Your task to perform on an android device: turn on translation in the chrome app Image 0: 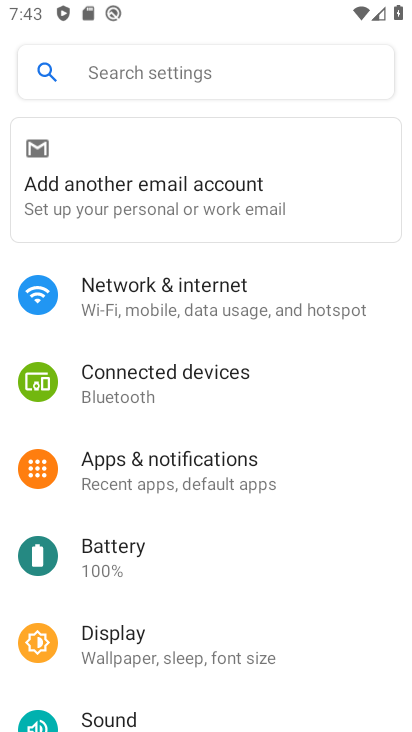
Step 0: press home button
Your task to perform on an android device: turn on translation in the chrome app Image 1: 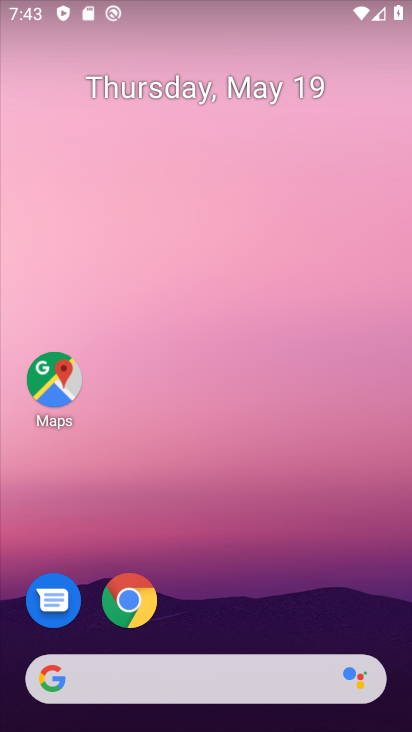
Step 1: click (145, 606)
Your task to perform on an android device: turn on translation in the chrome app Image 2: 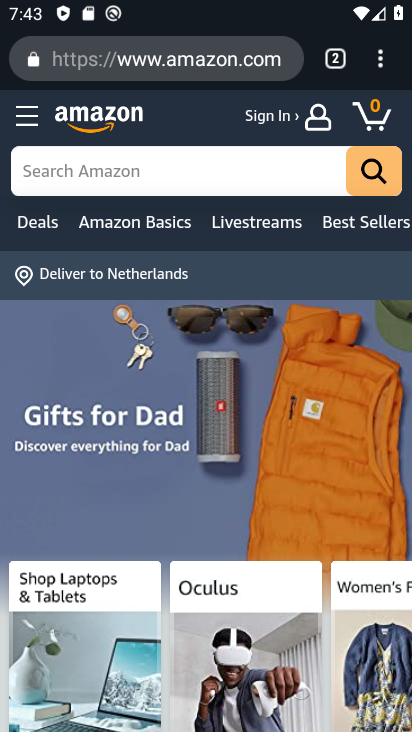
Step 2: click (386, 62)
Your task to perform on an android device: turn on translation in the chrome app Image 3: 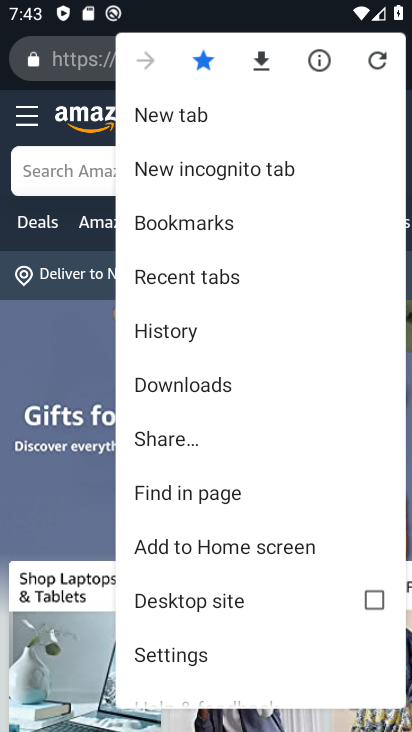
Step 3: click (196, 656)
Your task to perform on an android device: turn on translation in the chrome app Image 4: 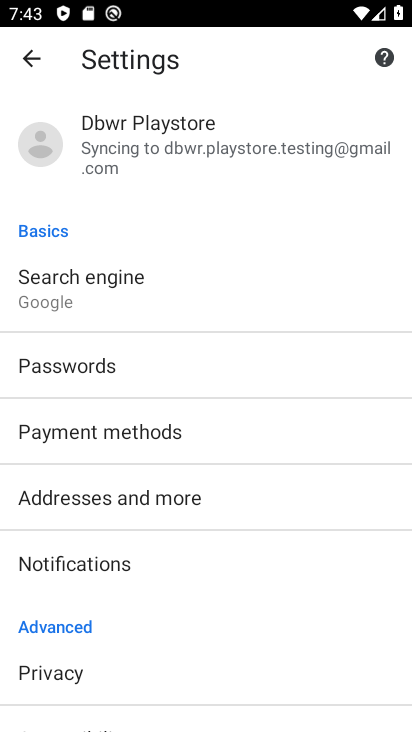
Step 4: drag from (195, 656) to (223, 260)
Your task to perform on an android device: turn on translation in the chrome app Image 5: 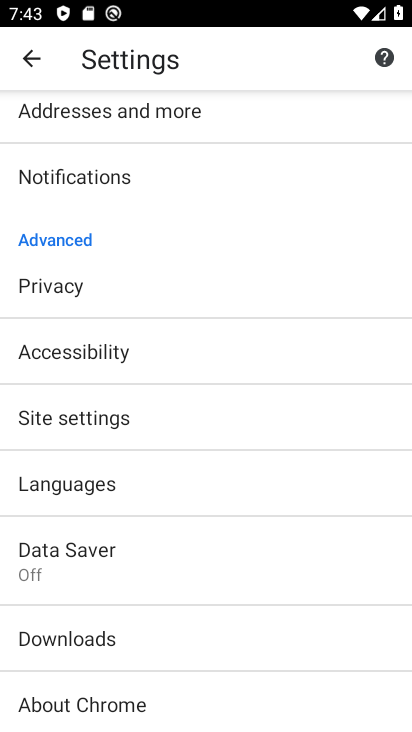
Step 5: click (55, 496)
Your task to perform on an android device: turn on translation in the chrome app Image 6: 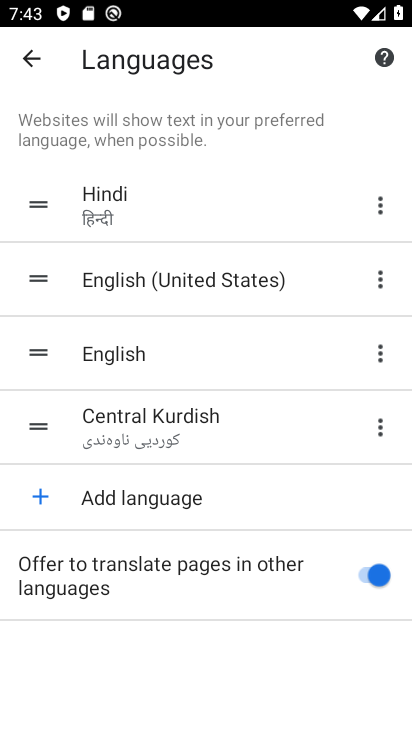
Step 6: task complete